Your task to perform on an android device: change the clock style Image 0: 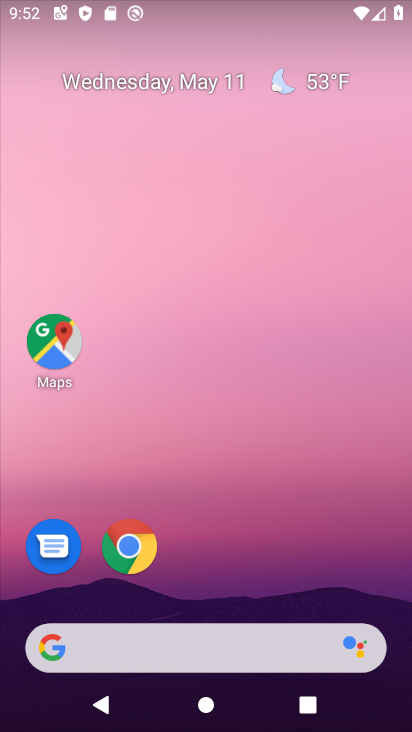
Step 0: drag from (405, 626) to (315, 114)
Your task to perform on an android device: change the clock style Image 1: 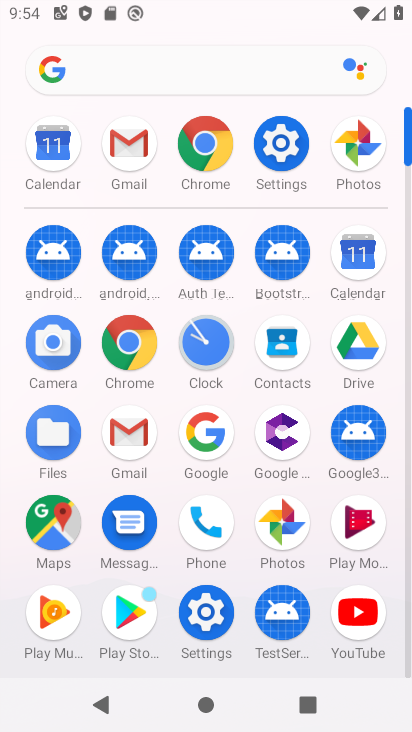
Step 1: click (194, 352)
Your task to perform on an android device: change the clock style Image 2: 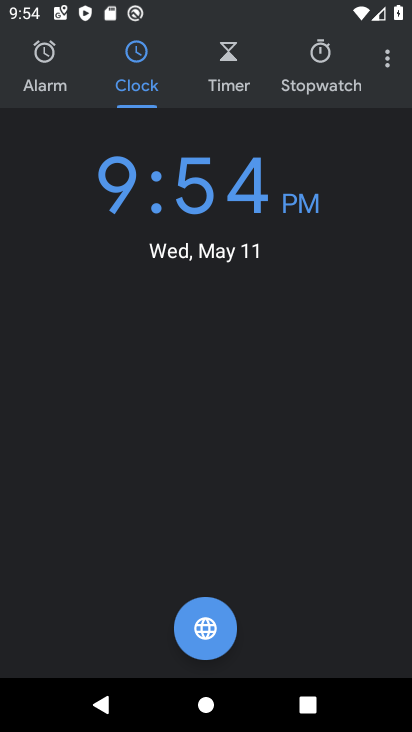
Step 2: click (383, 49)
Your task to perform on an android device: change the clock style Image 3: 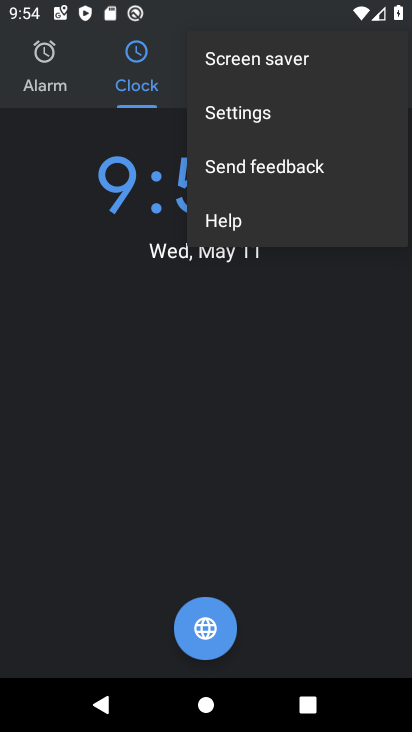
Step 3: click (233, 119)
Your task to perform on an android device: change the clock style Image 4: 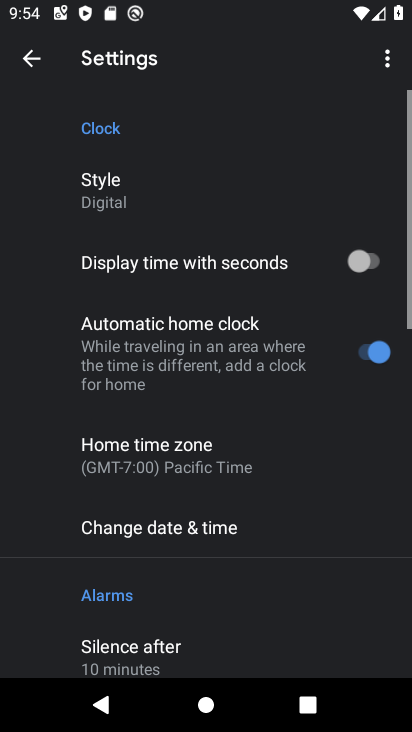
Step 4: click (161, 205)
Your task to perform on an android device: change the clock style Image 5: 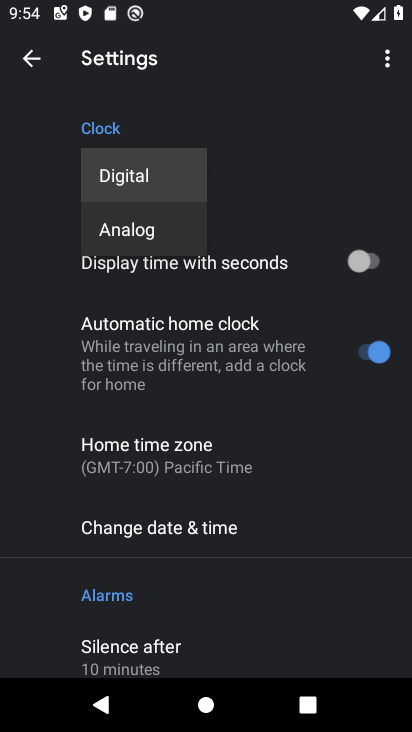
Step 5: click (152, 226)
Your task to perform on an android device: change the clock style Image 6: 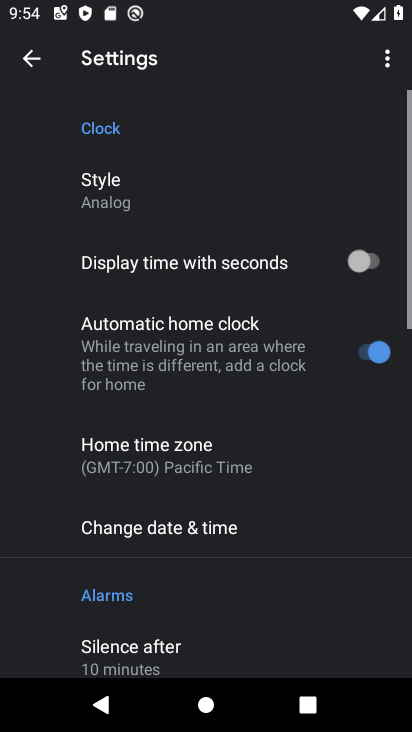
Step 6: task complete